Your task to perform on an android device: Open calendar and show me the first week of next month Image 0: 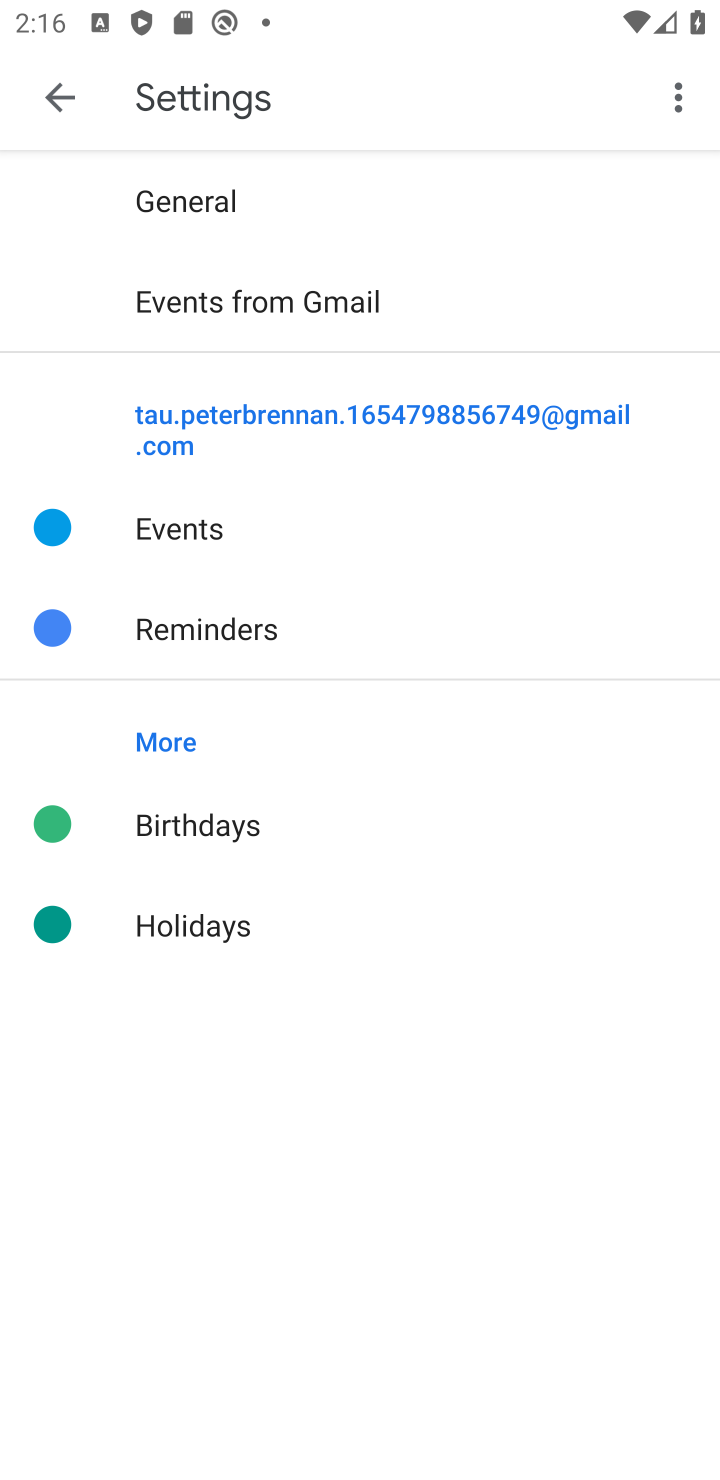
Step 0: press home button
Your task to perform on an android device: Open calendar and show me the first week of next month Image 1: 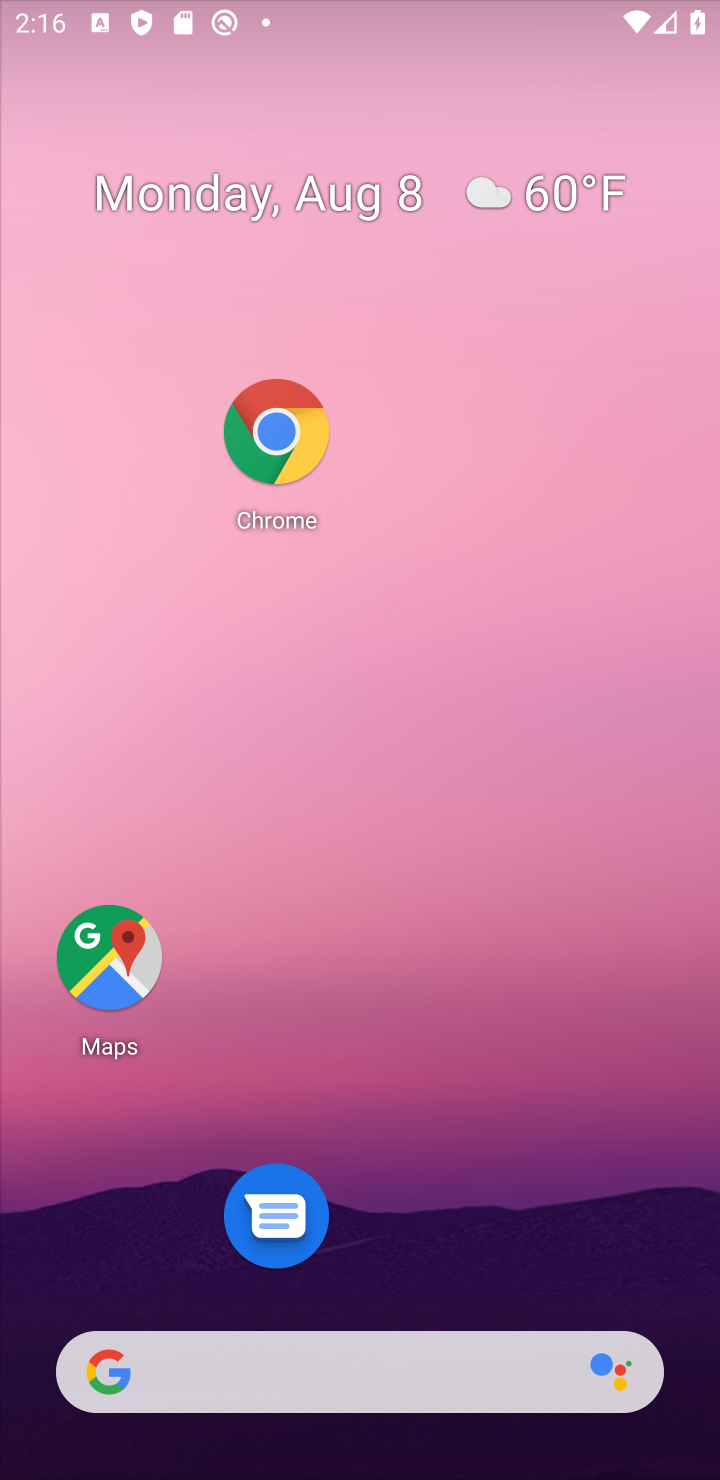
Step 1: drag from (239, 621) to (172, 0)
Your task to perform on an android device: Open calendar and show me the first week of next month Image 2: 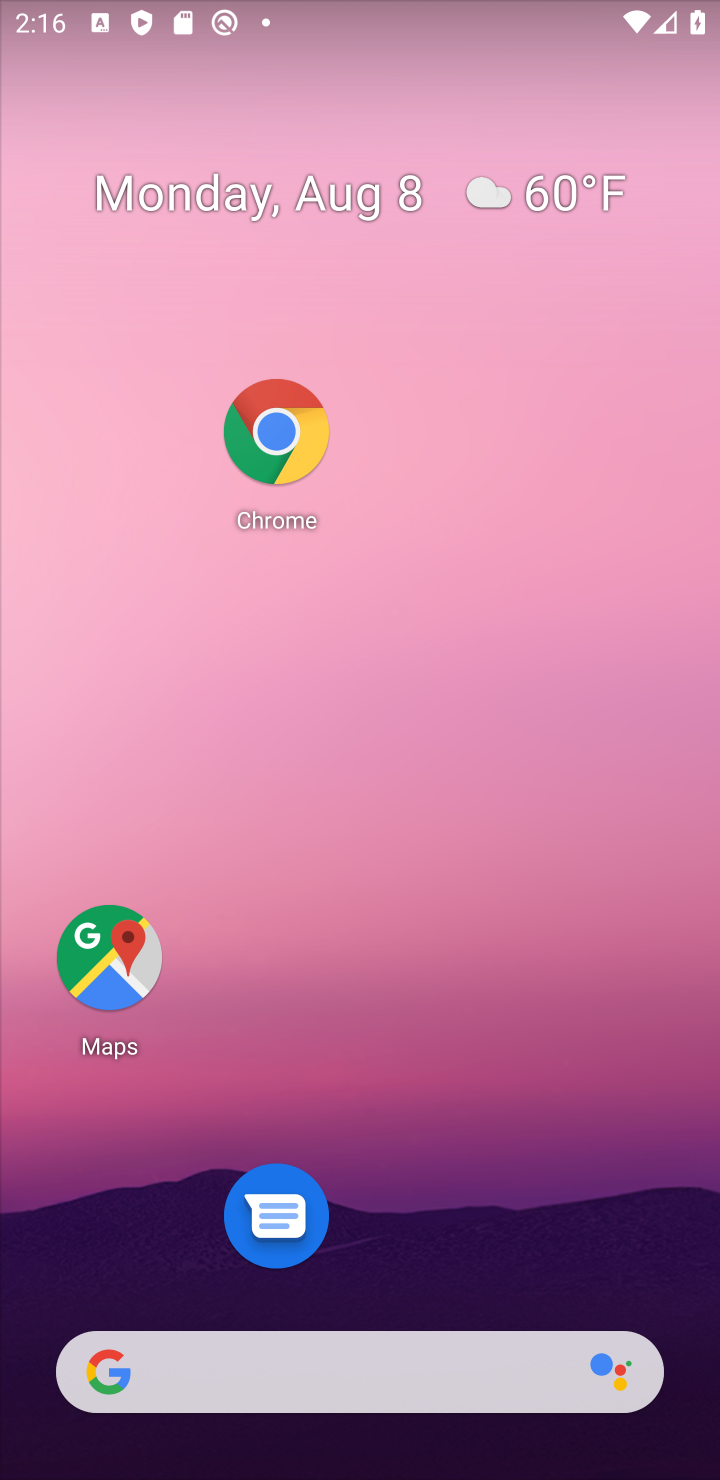
Step 2: drag from (381, 866) to (315, 81)
Your task to perform on an android device: Open calendar and show me the first week of next month Image 3: 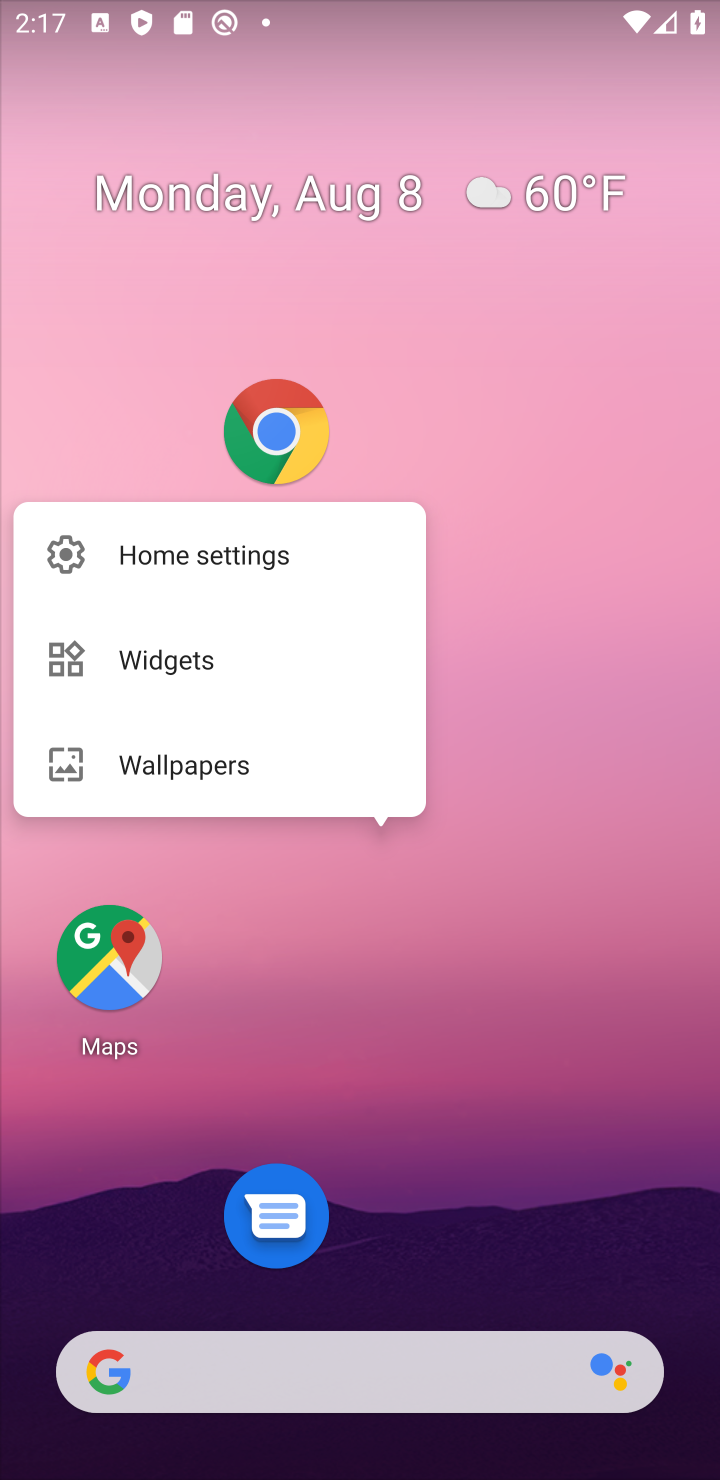
Step 3: click (533, 1134)
Your task to perform on an android device: Open calendar and show me the first week of next month Image 4: 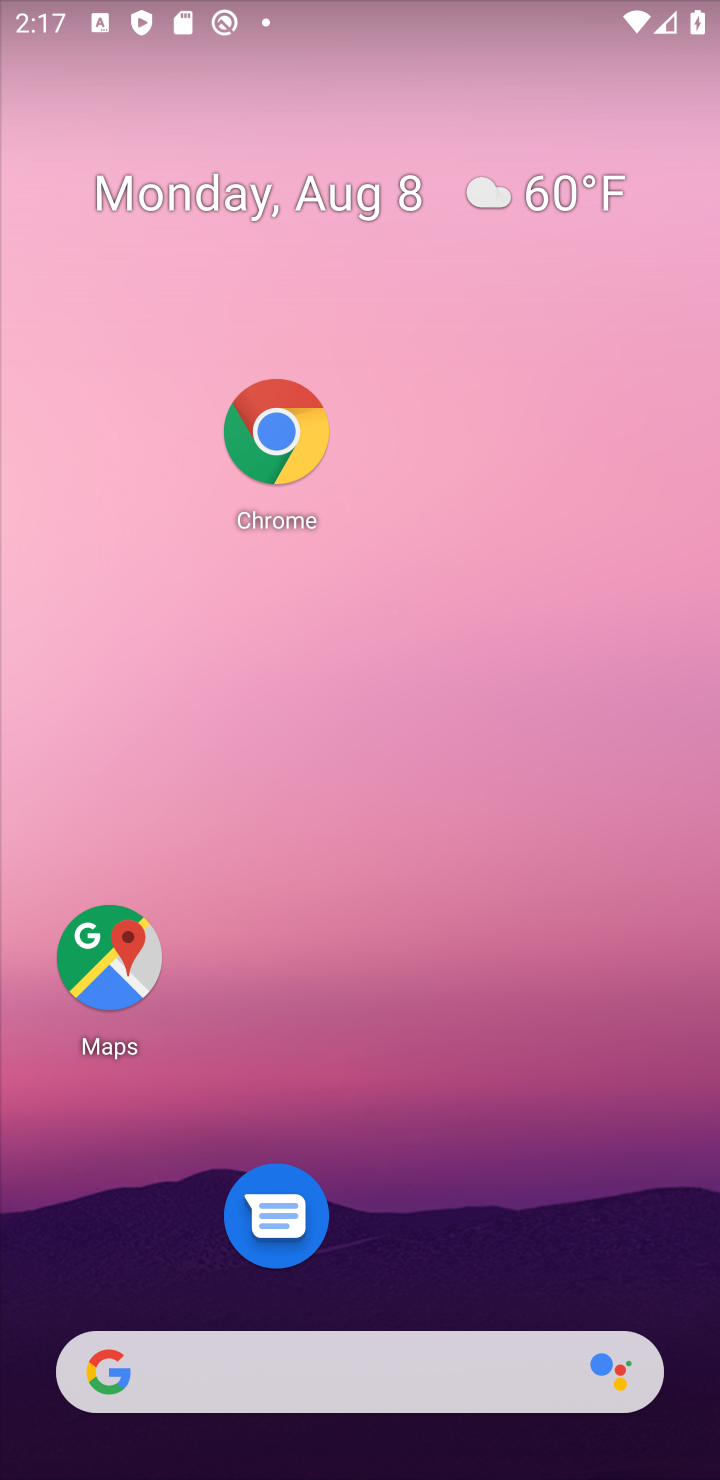
Step 4: drag from (436, 576) to (396, 138)
Your task to perform on an android device: Open calendar and show me the first week of next month Image 5: 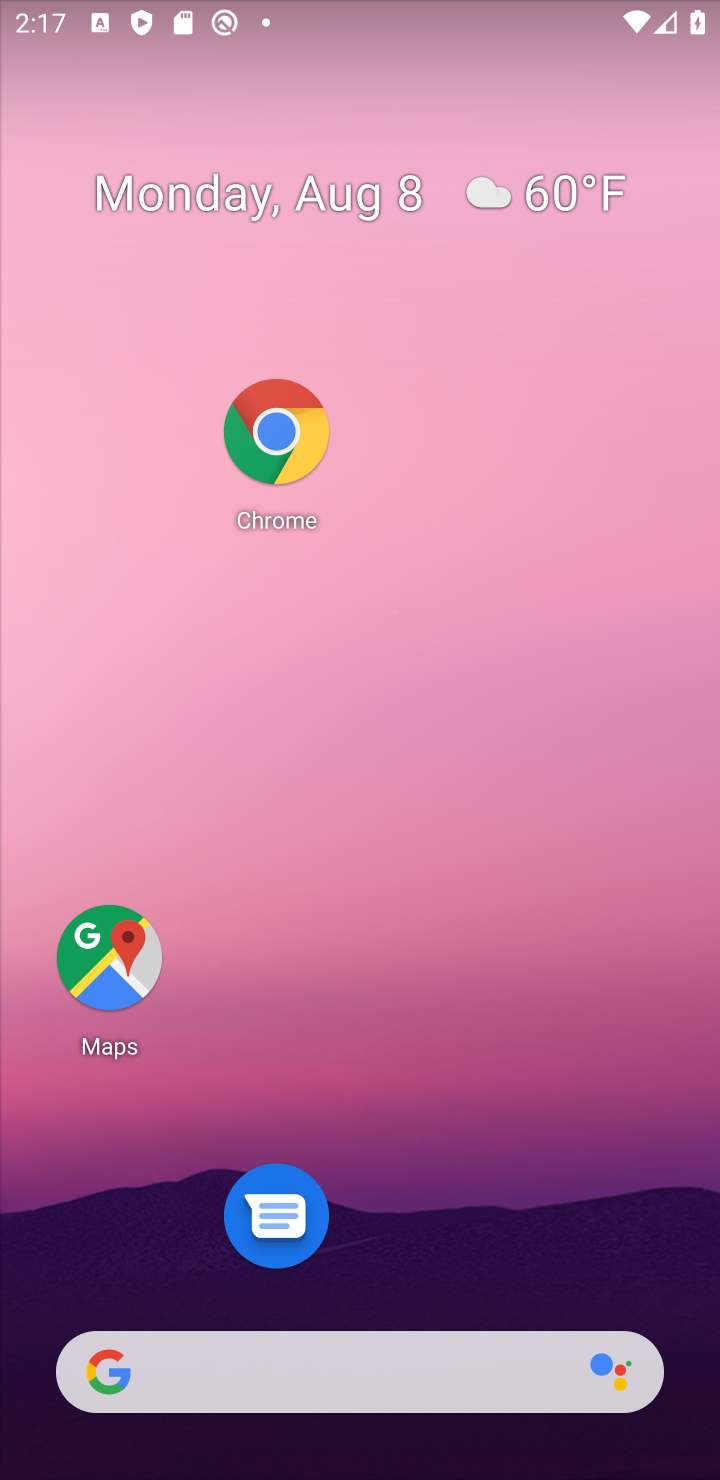
Step 5: drag from (499, 1312) to (381, 0)
Your task to perform on an android device: Open calendar and show me the first week of next month Image 6: 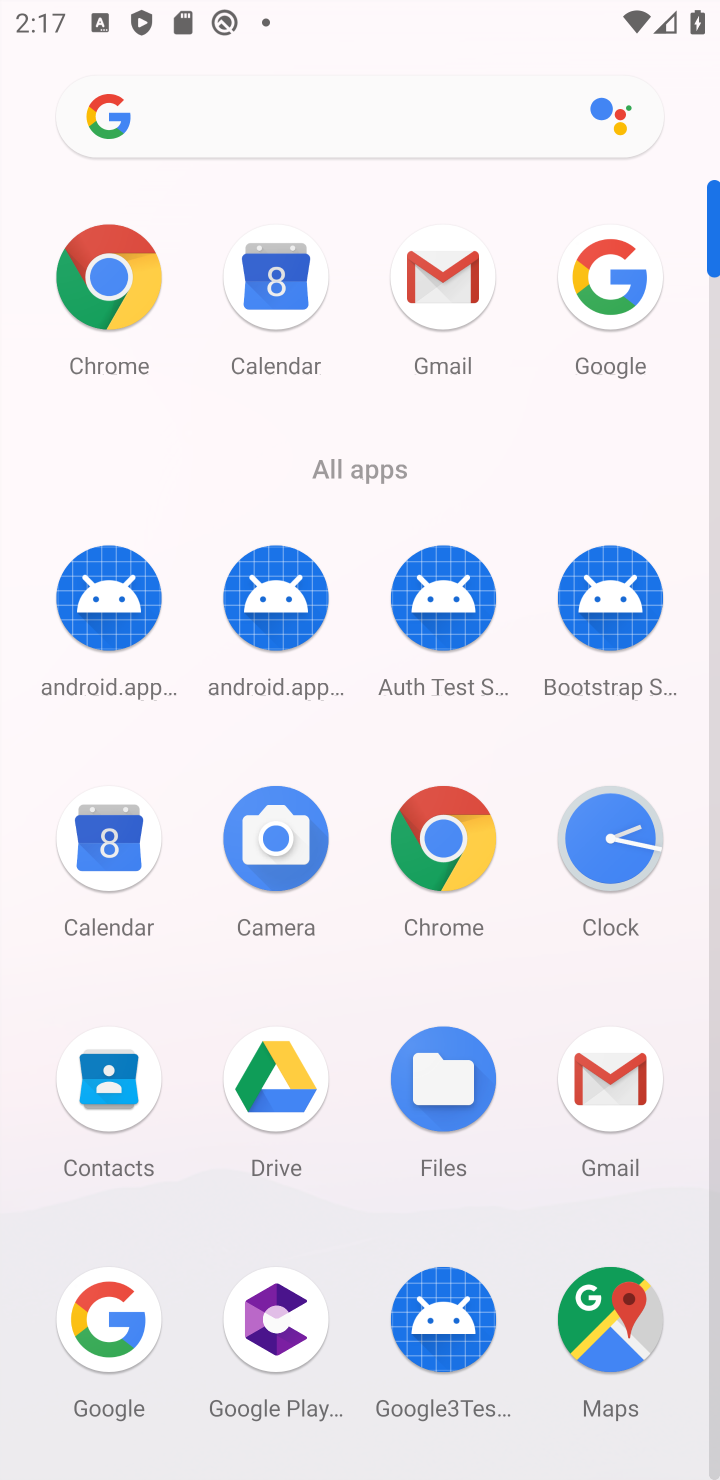
Step 6: click (136, 882)
Your task to perform on an android device: Open calendar and show me the first week of next month Image 7: 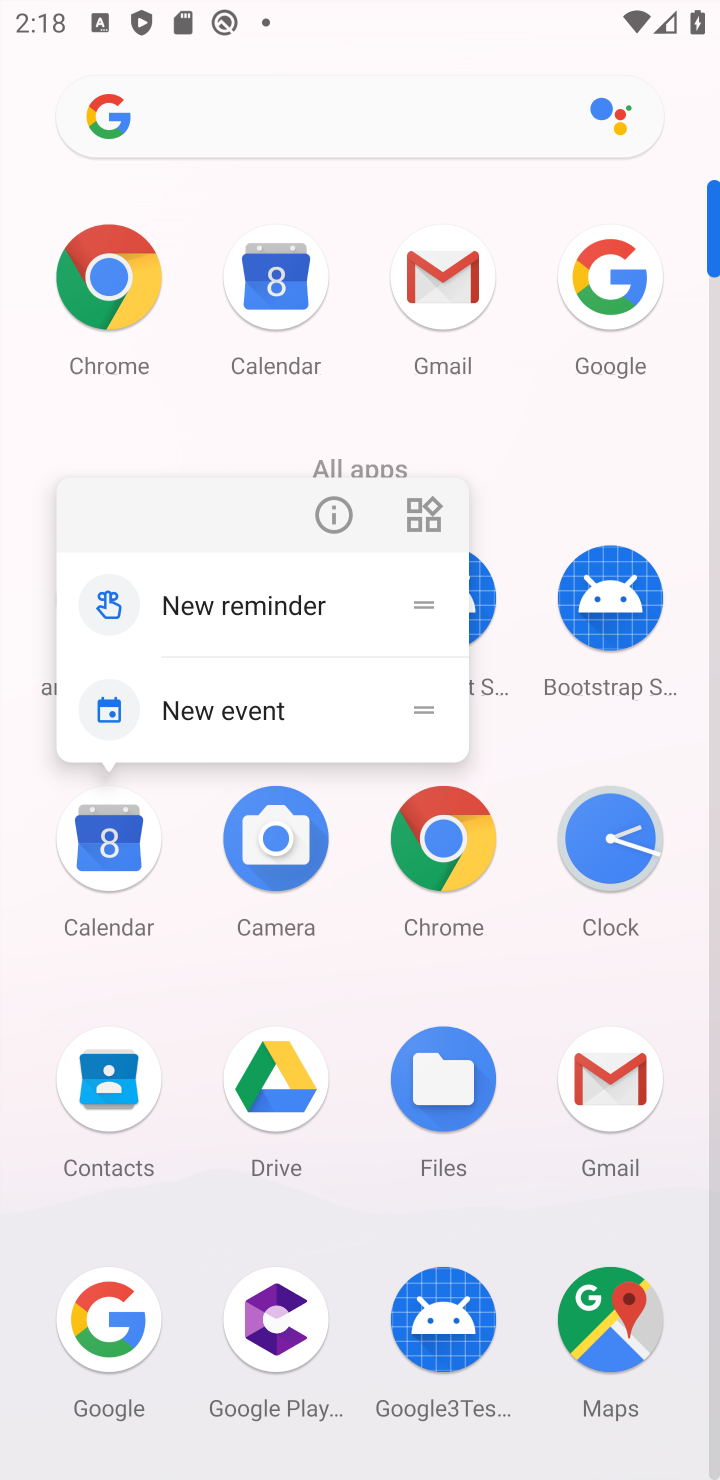
Step 7: click (132, 833)
Your task to perform on an android device: Open calendar and show me the first week of next month Image 8: 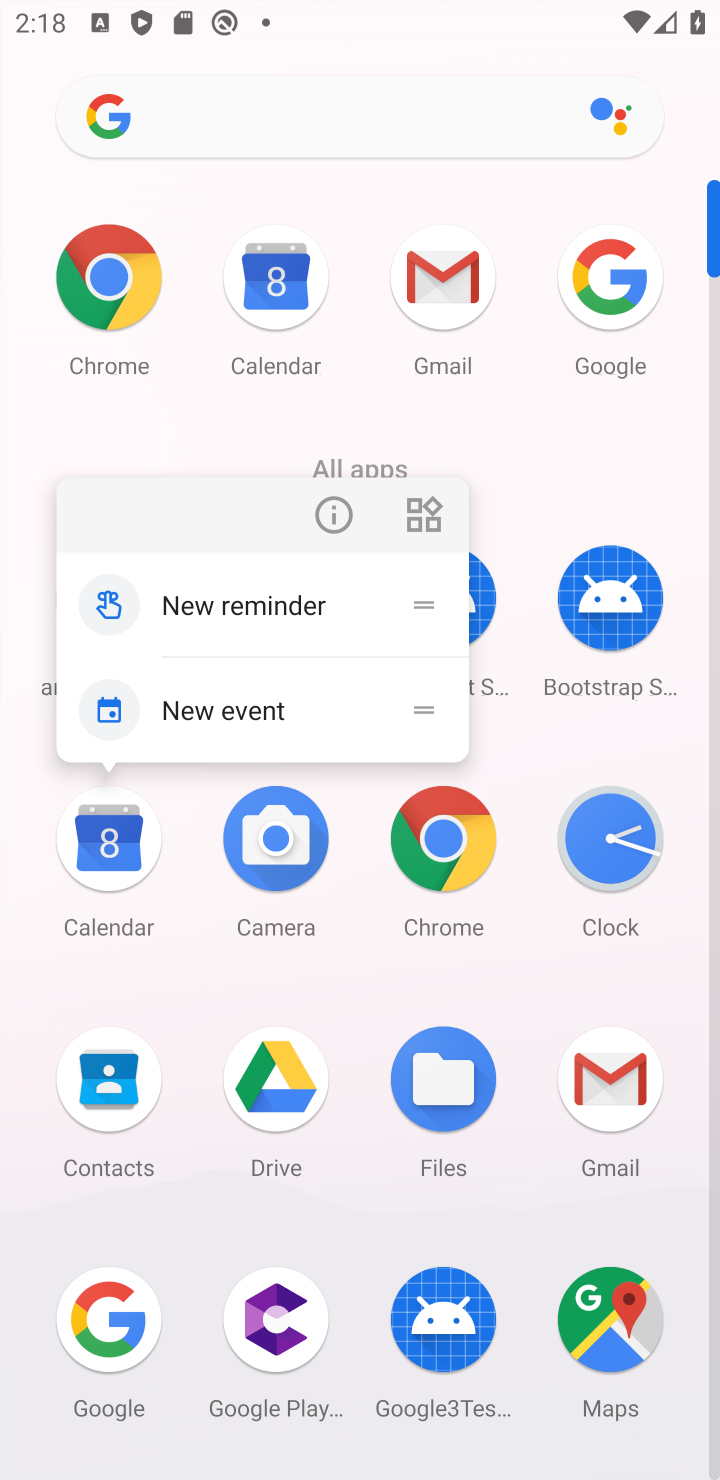
Step 8: click (137, 872)
Your task to perform on an android device: Open calendar and show me the first week of next month Image 9: 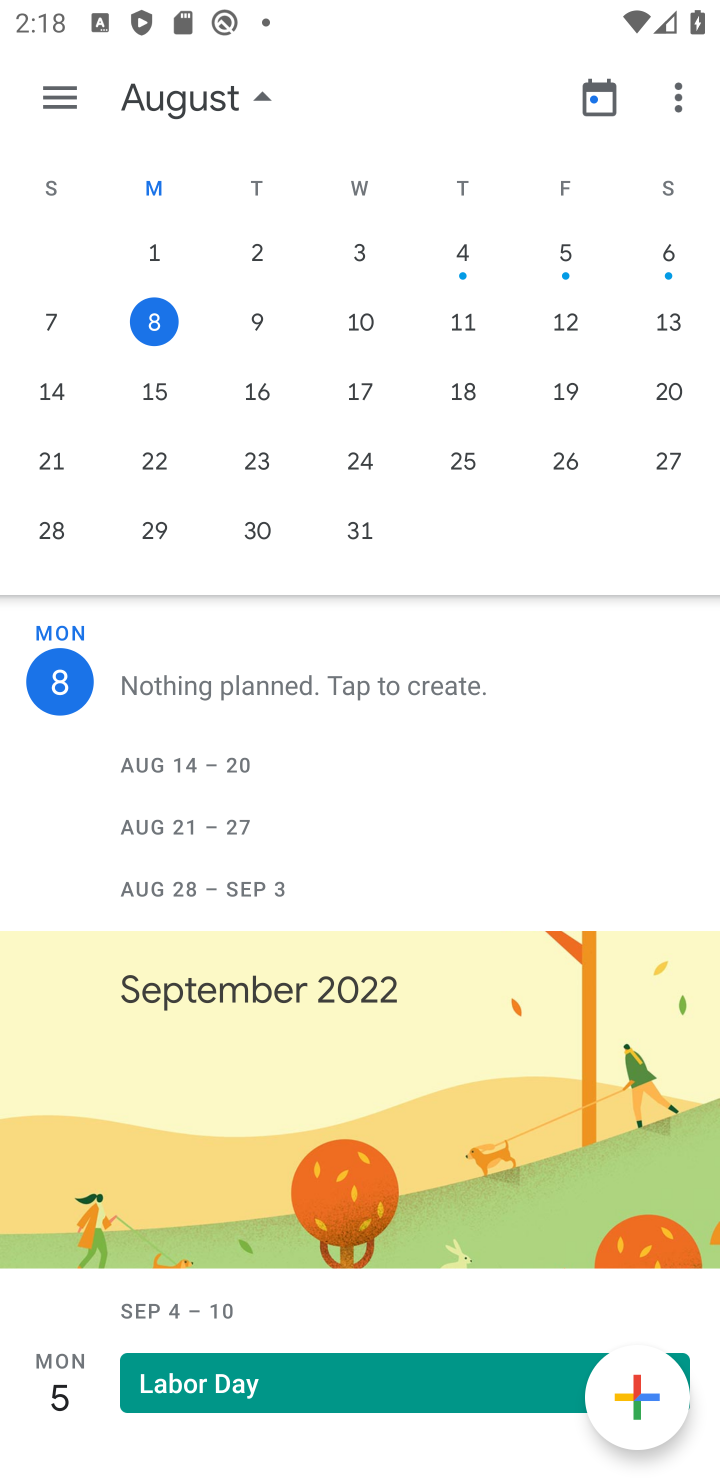
Step 9: task complete